Your task to perform on an android device: Is it going to rain tomorrow? Image 0: 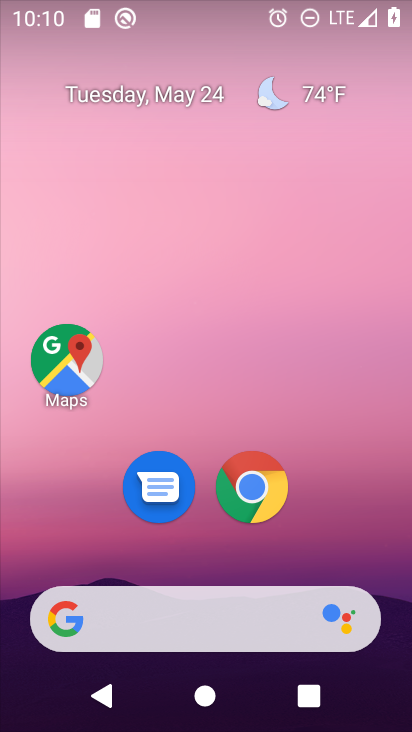
Step 0: click (325, 83)
Your task to perform on an android device: Is it going to rain tomorrow? Image 1: 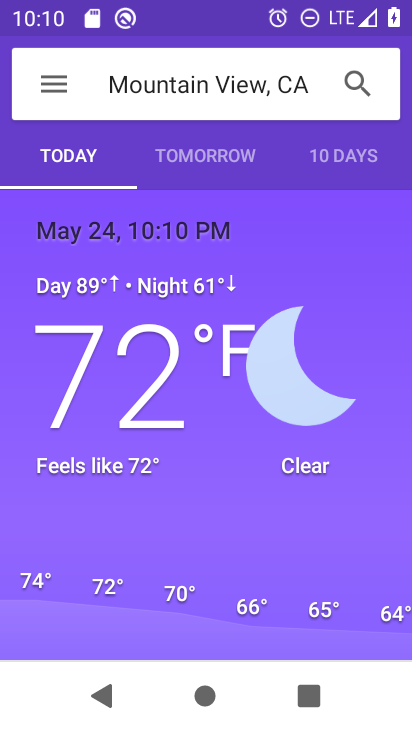
Step 1: click (159, 142)
Your task to perform on an android device: Is it going to rain tomorrow? Image 2: 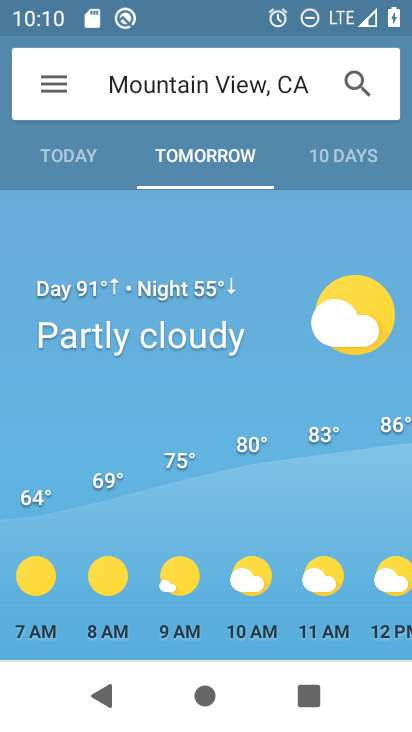
Step 2: task complete